Your task to perform on an android device: clear history in the chrome app Image 0: 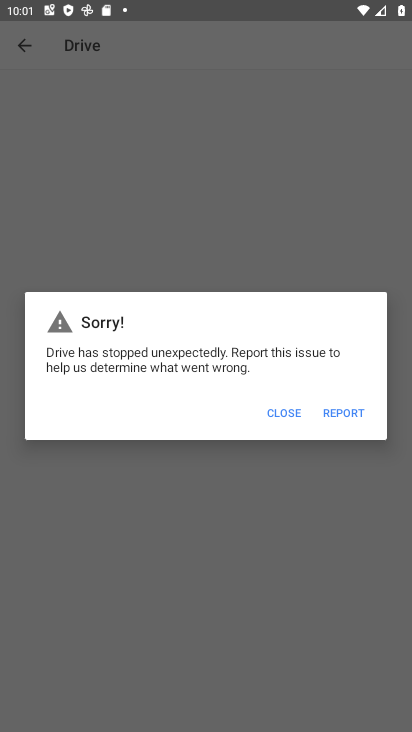
Step 0: click (348, 398)
Your task to perform on an android device: clear history in the chrome app Image 1: 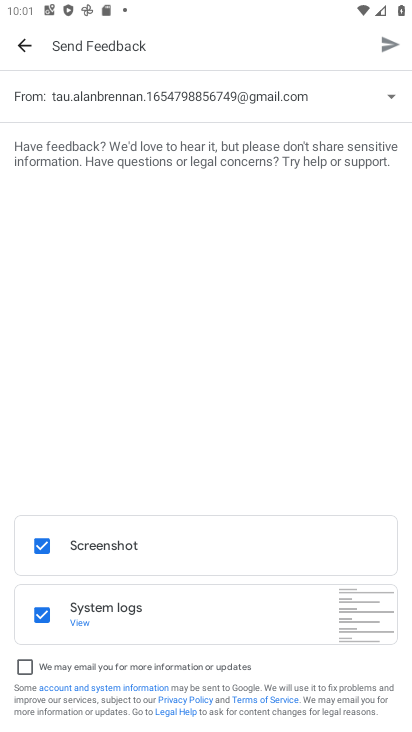
Step 1: press home button
Your task to perform on an android device: clear history in the chrome app Image 2: 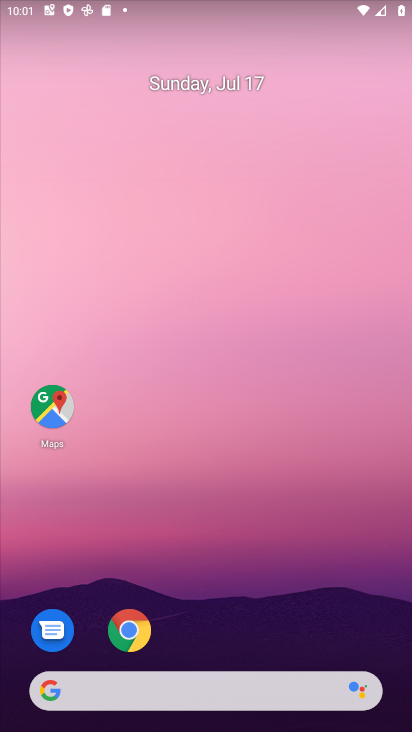
Step 2: click (138, 637)
Your task to perform on an android device: clear history in the chrome app Image 3: 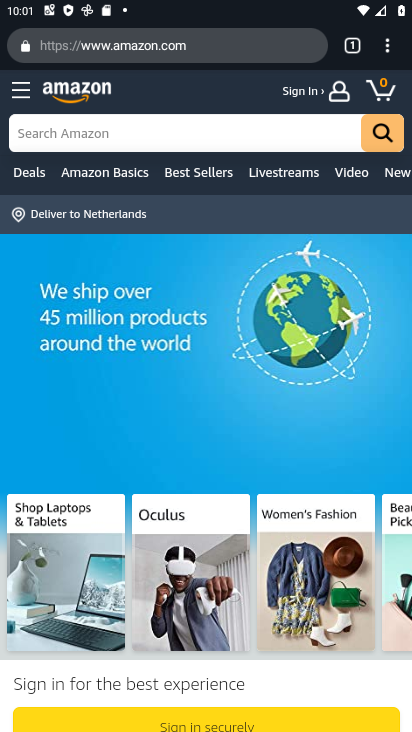
Step 3: click (387, 46)
Your task to perform on an android device: clear history in the chrome app Image 4: 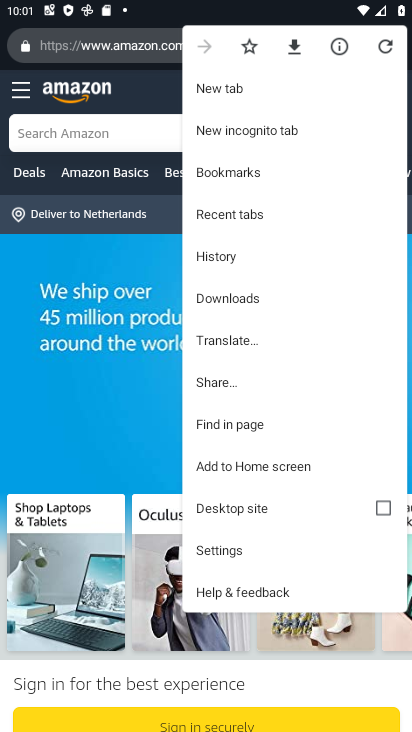
Step 4: click (245, 538)
Your task to perform on an android device: clear history in the chrome app Image 5: 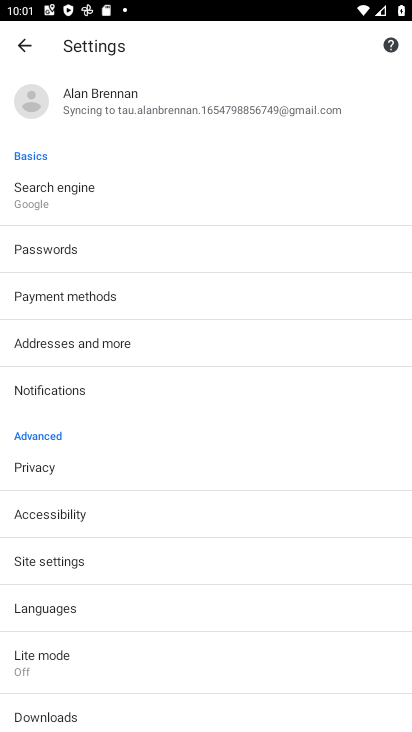
Step 5: task complete